Your task to perform on an android device: Open Chrome and go to settings Image 0: 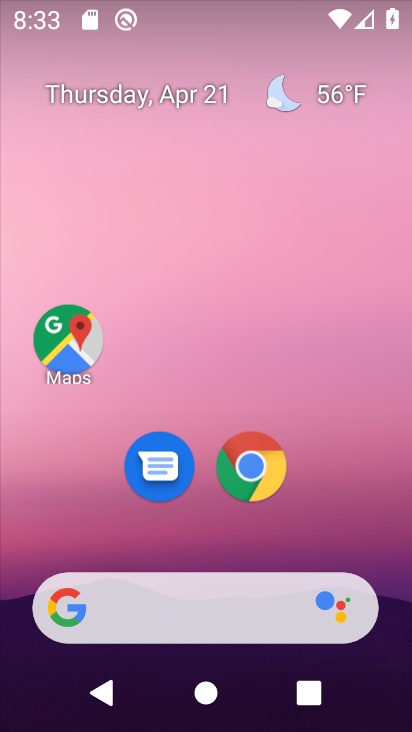
Step 0: click (239, 472)
Your task to perform on an android device: Open Chrome and go to settings Image 1: 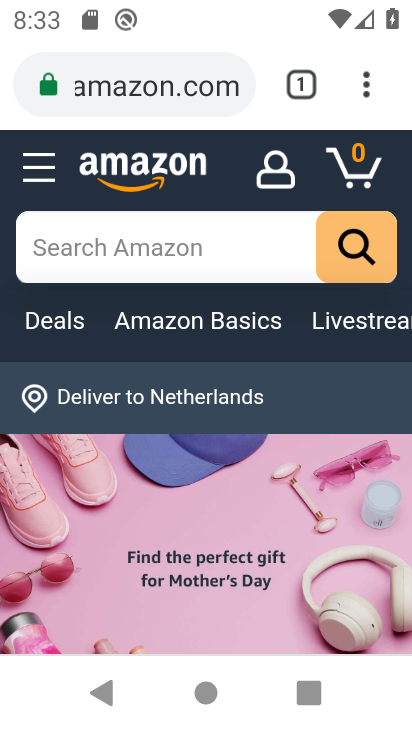
Step 1: task complete